Your task to perform on an android device: open app "Mercado Libre" (install if not already installed) Image 0: 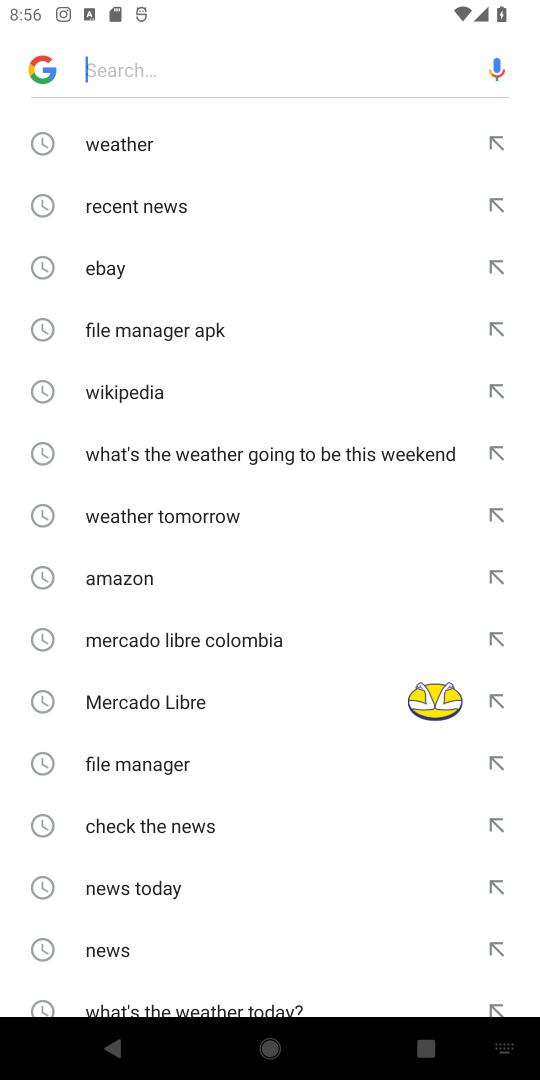
Step 0: press home button
Your task to perform on an android device: open app "Mercado Libre" (install if not already installed) Image 1: 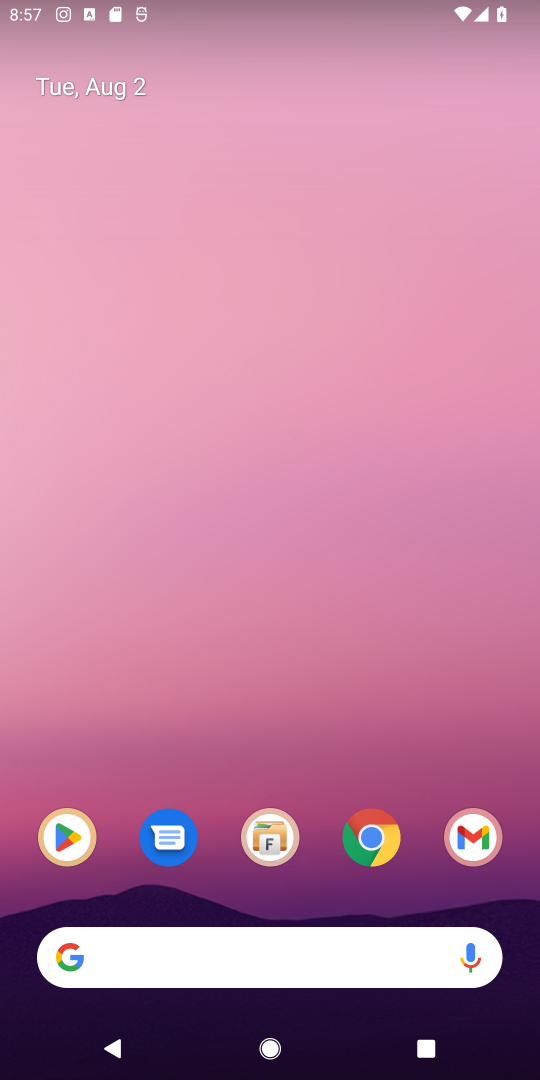
Step 1: click (72, 834)
Your task to perform on an android device: open app "Mercado Libre" (install if not already installed) Image 2: 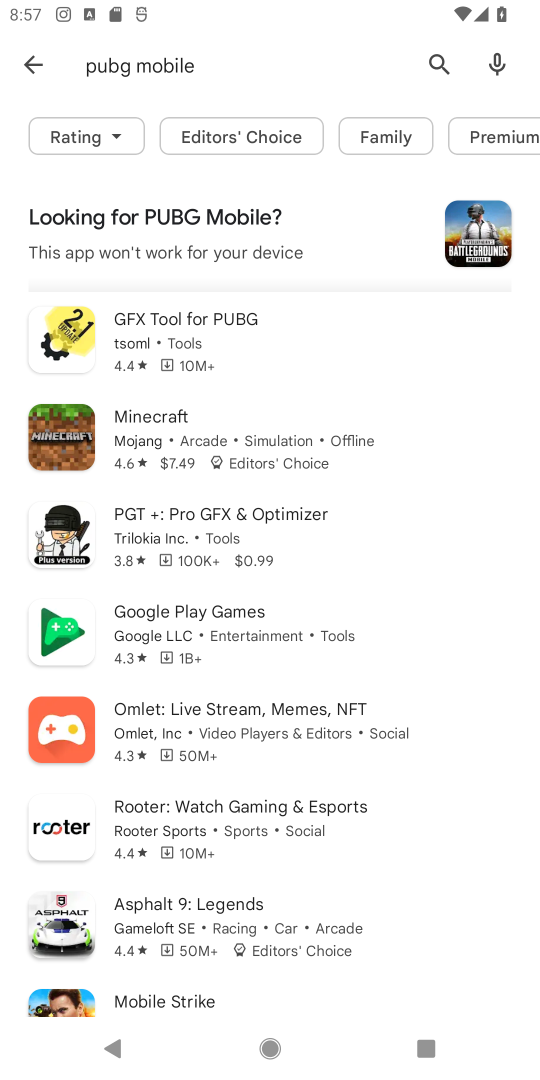
Step 2: click (439, 61)
Your task to perform on an android device: open app "Mercado Libre" (install if not already installed) Image 3: 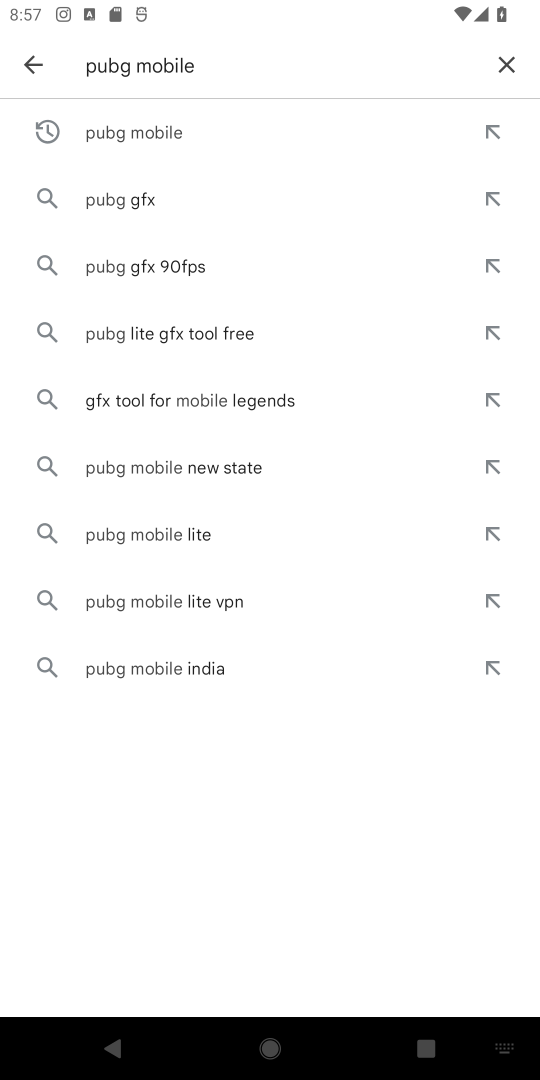
Step 3: click (501, 69)
Your task to perform on an android device: open app "Mercado Libre" (install if not already installed) Image 4: 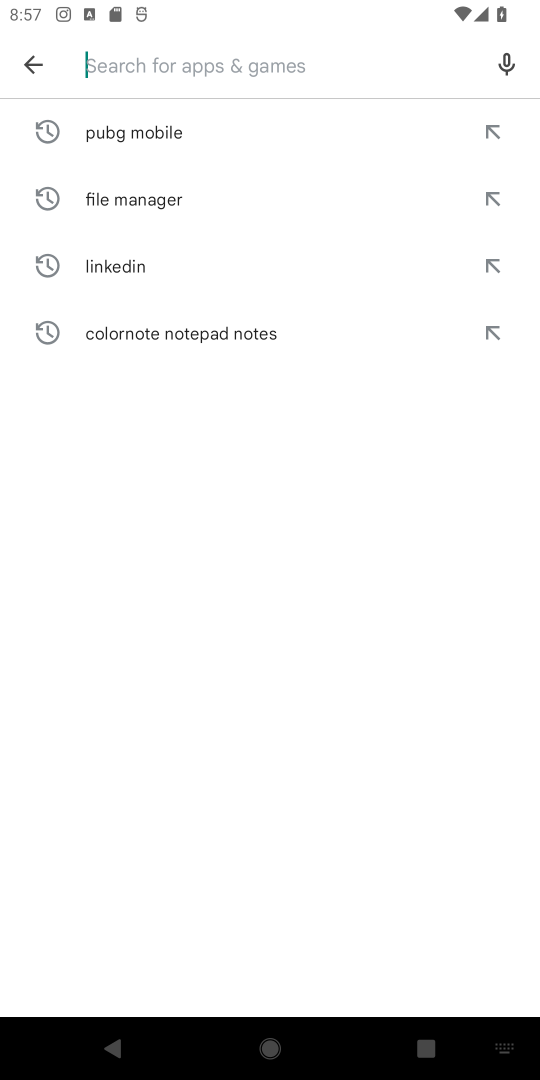
Step 4: type "Mercado Libre"
Your task to perform on an android device: open app "Mercado Libre" (install if not already installed) Image 5: 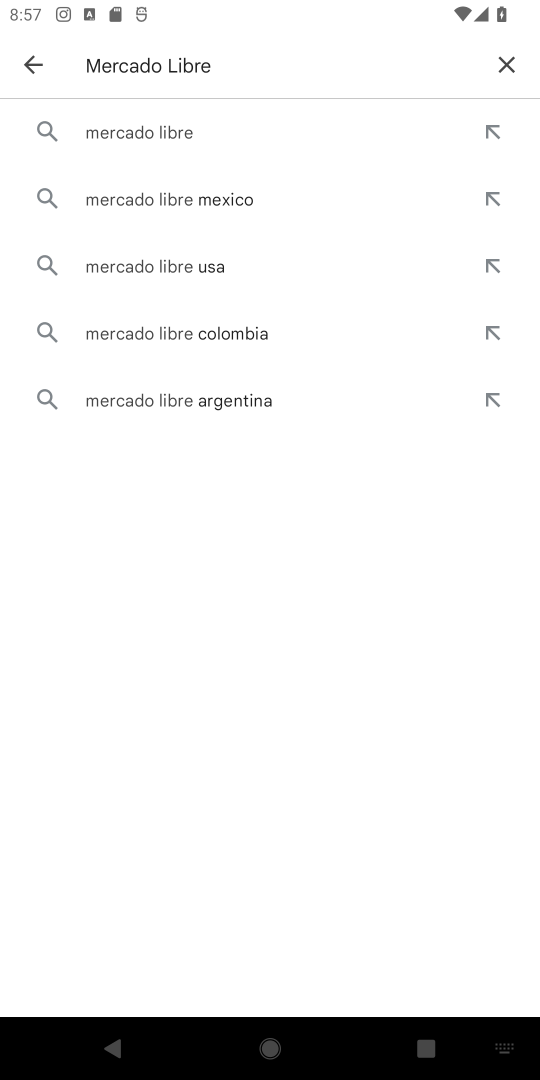
Step 5: click (144, 141)
Your task to perform on an android device: open app "Mercado Libre" (install if not already installed) Image 6: 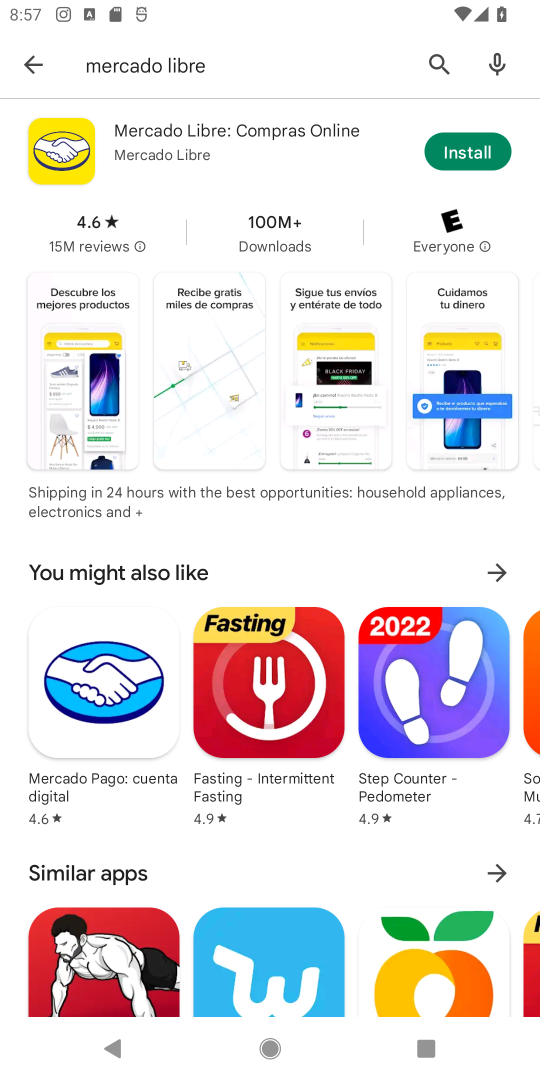
Step 6: click (442, 149)
Your task to perform on an android device: open app "Mercado Libre" (install if not already installed) Image 7: 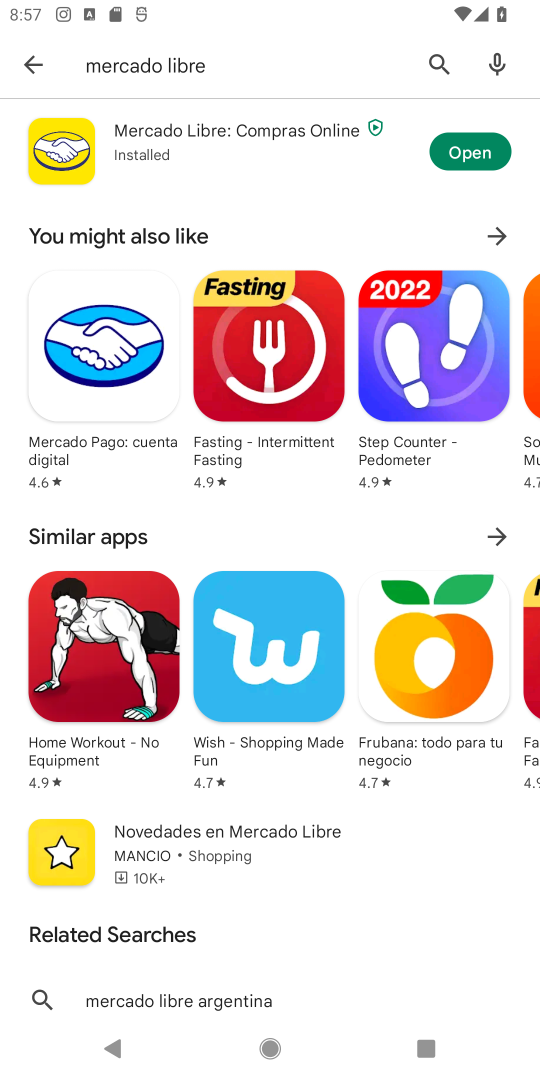
Step 7: click (469, 163)
Your task to perform on an android device: open app "Mercado Libre" (install if not already installed) Image 8: 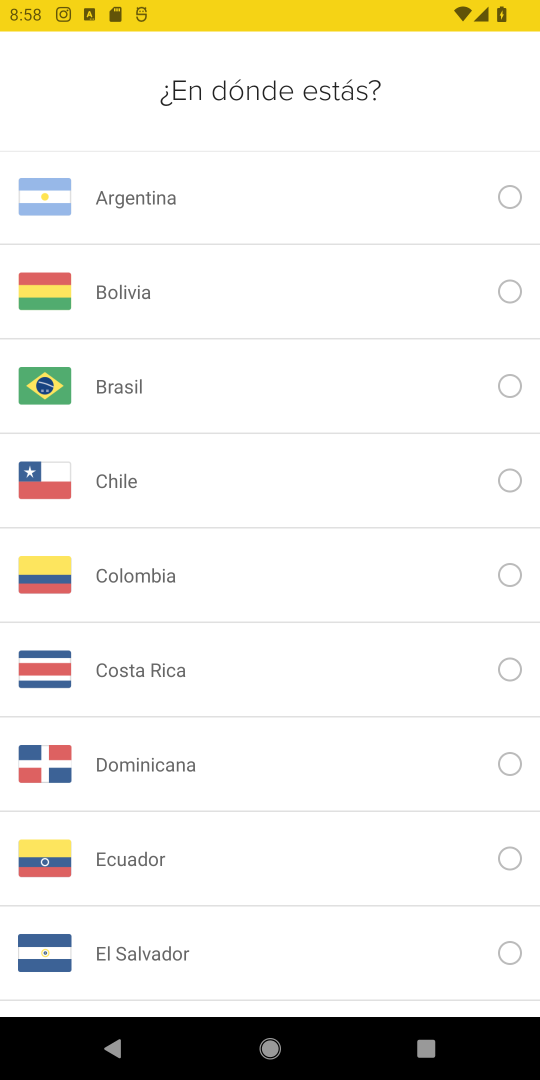
Step 8: task complete